Your task to perform on an android device: Show me popular videos on Youtube Image 0: 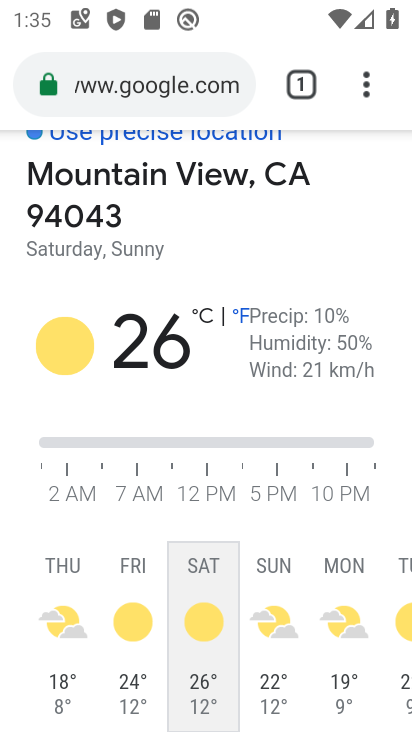
Step 0: press home button
Your task to perform on an android device: Show me popular videos on Youtube Image 1: 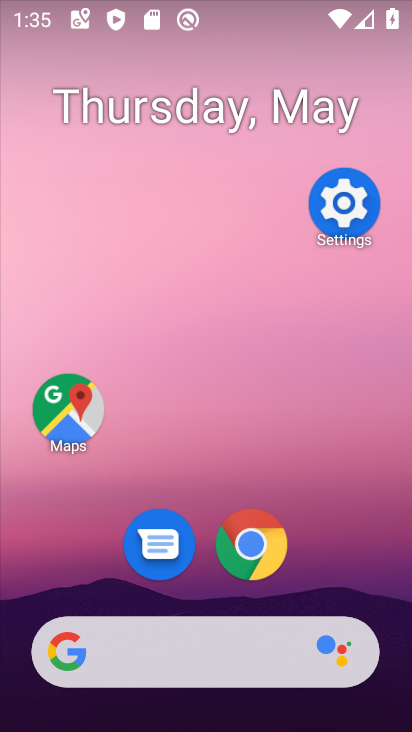
Step 1: drag from (317, 526) to (336, 124)
Your task to perform on an android device: Show me popular videos on Youtube Image 2: 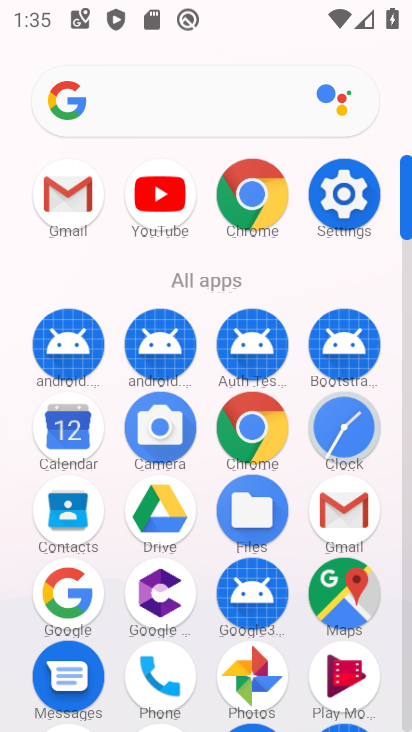
Step 2: drag from (327, 618) to (329, 258)
Your task to perform on an android device: Show me popular videos on Youtube Image 3: 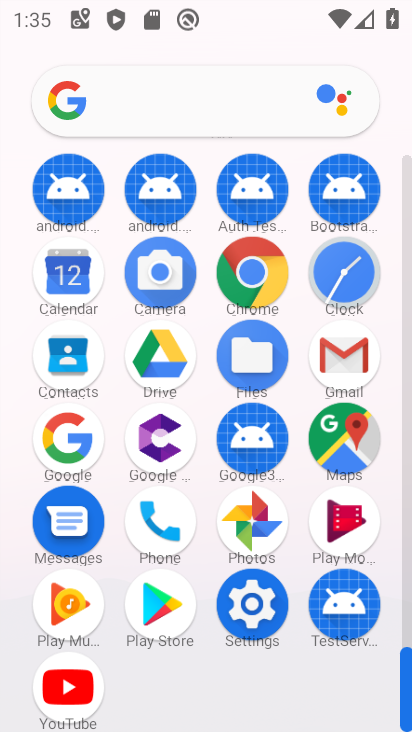
Step 3: click (76, 693)
Your task to perform on an android device: Show me popular videos on Youtube Image 4: 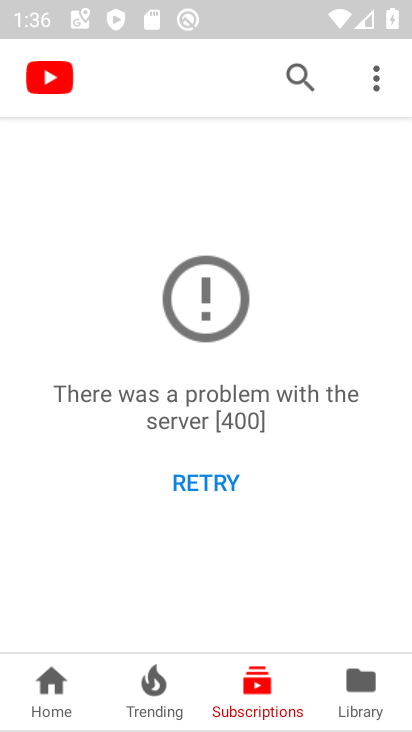
Step 4: click (157, 701)
Your task to perform on an android device: Show me popular videos on Youtube Image 5: 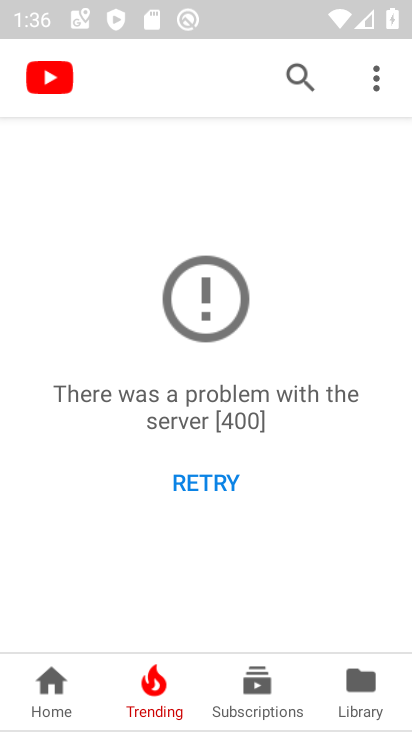
Step 5: task complete